Your task to perform on an android device: set the timer Image 0: 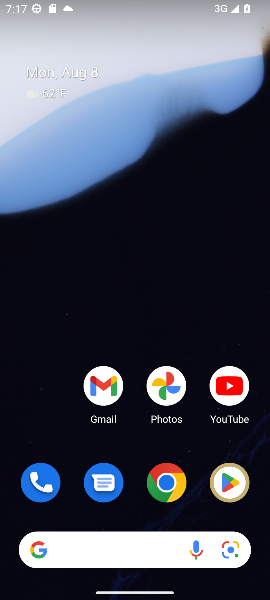
Step 0: drag from (37, 443) to (262, 137)
Your task to perform on an android device: set the timer Image 1: 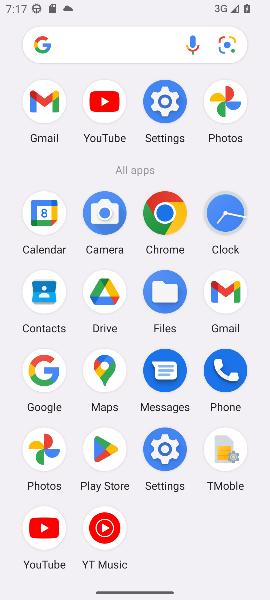
Step 1: click (219, 218)
Your task to perform on an android device: set the timer Image 2: 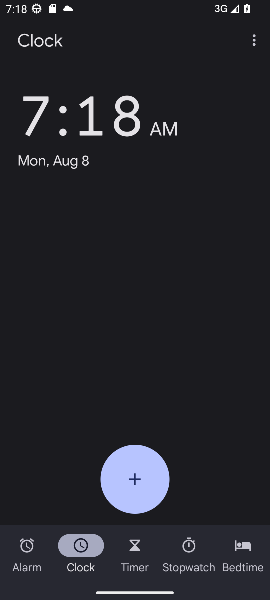
Step 2: click (140, 551)
Your task to perform on an android device: set the timer Image 3: 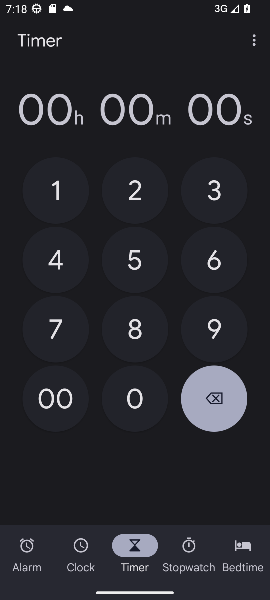
Step 3: click (101, 192)
Your task to perform on an android device: set the timer Image 4: 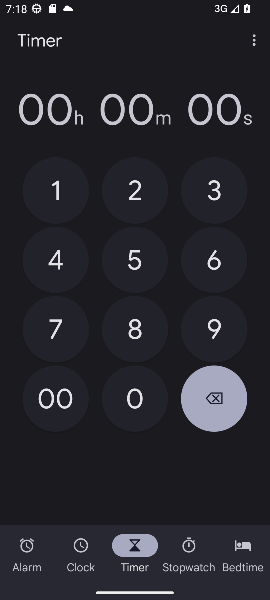
Step 4: click (124, 239)
Your task to perform on an android device: set the timer Image 5: 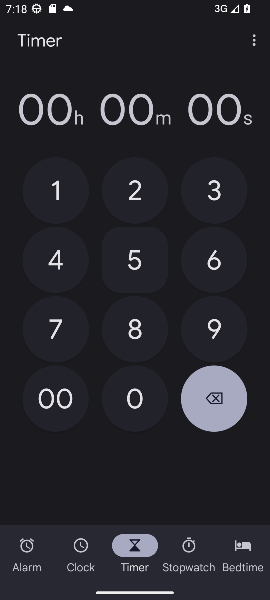
Step 5: click (128, 166)
Your task to perform on an android device: set the timer Image 6: 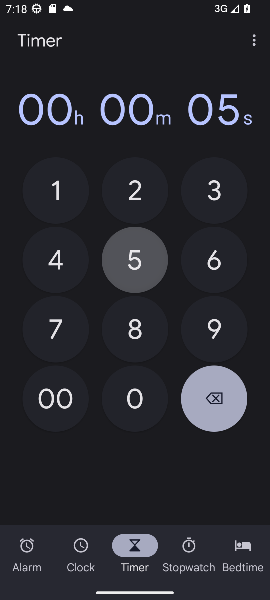
Step 6: click (134, 184)
Your task to perform on an android device: set the timer Image 7: 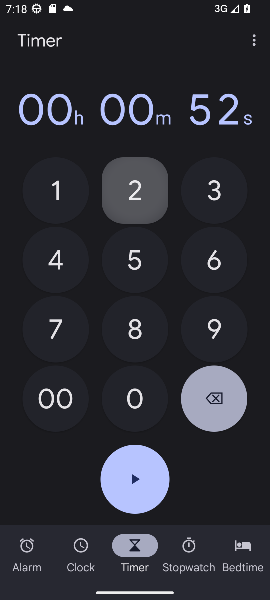
Step 7: click (134, 192)
Your task to perform on an android device: set the timer Image 8: 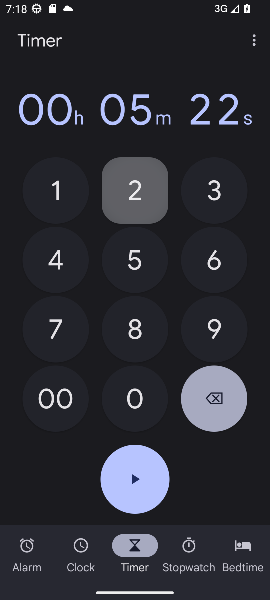
Step 8: click (122, 238)
Your task to perform on an android device: set the timer Image 9: 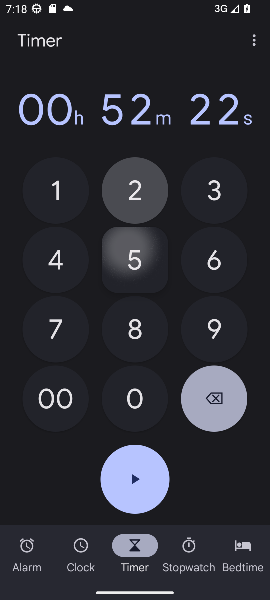
Step 9: click (144, 188)
Your task to perform on an android device: set the timer Image 10: 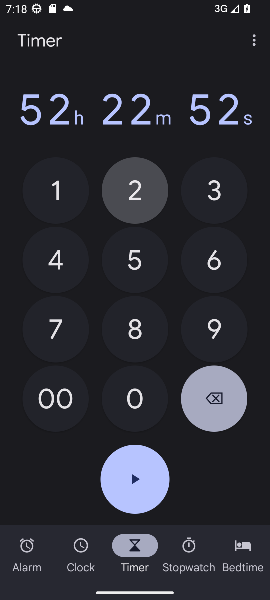
Step 10: click (127, 243)
Your task to perform on an android device: set the timer Image 11: 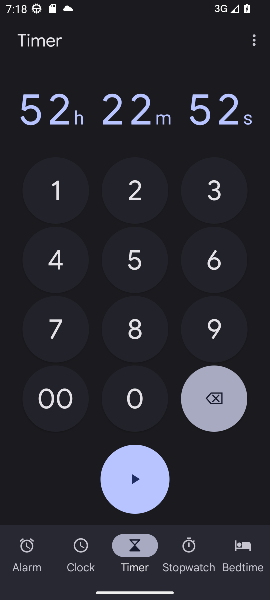
Step 11: click (145, 482)
Your task to perform on an android device: set the timer Image 12: 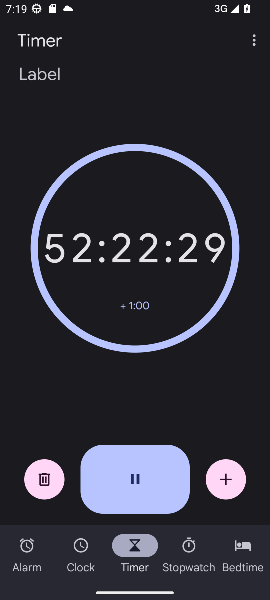
Step 12: task complete